Your task to perform on an android device: move an email to a new category in the gmail app Image 0: 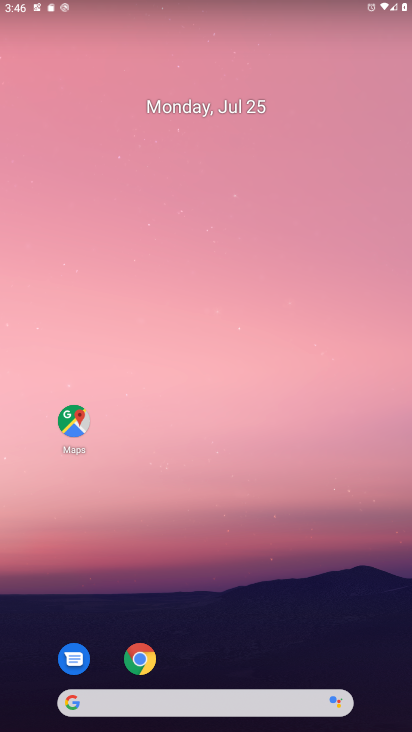
Step 0: drag from (194, 579) to (208, 79)
Your task to perform on an android device: move an email to a new category in the gmail app Image 1: 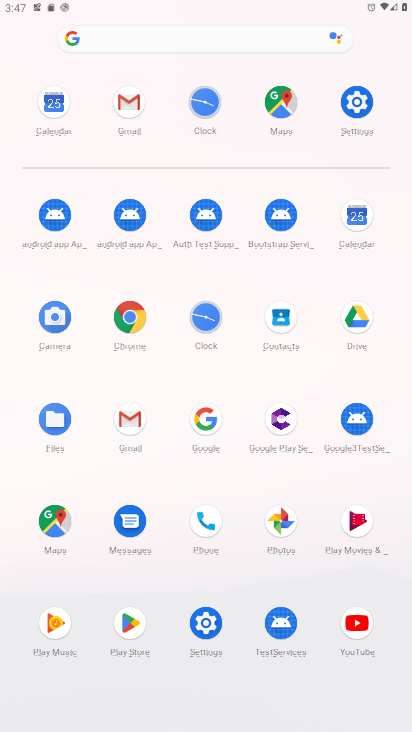
Step 1: click (121, 425)
Your task to perform on an android device: move an email to a new category in the gmail app Image 2: 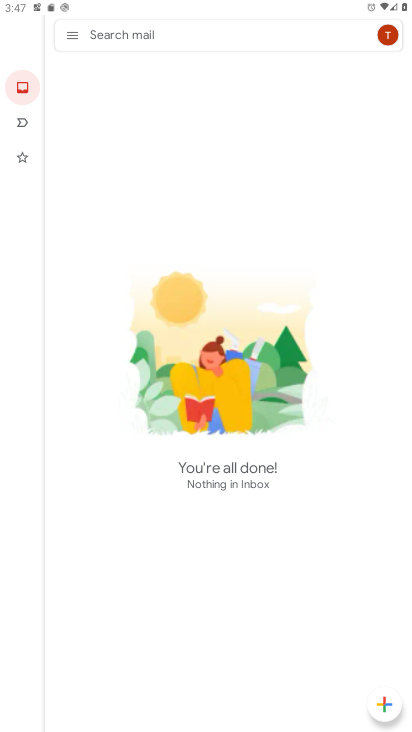
Step 2: click (69, 35)
Your task to perform on an android device: move an email to a new category in the gmail app Image 3: 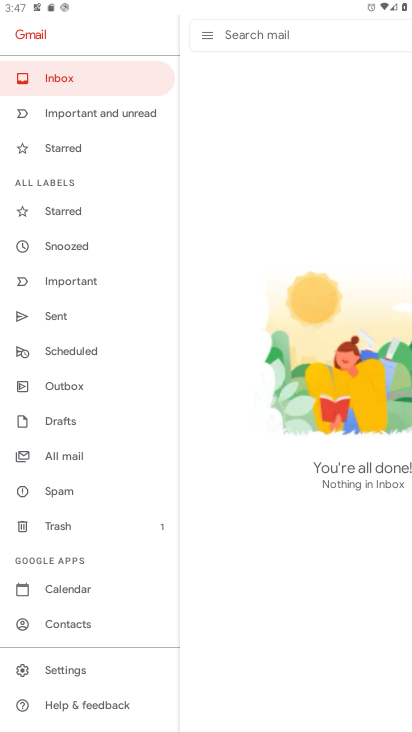
Step 3: click (57, 453)
Your task to perform on an android device: move an email to a new category in the gmail app Image 4: 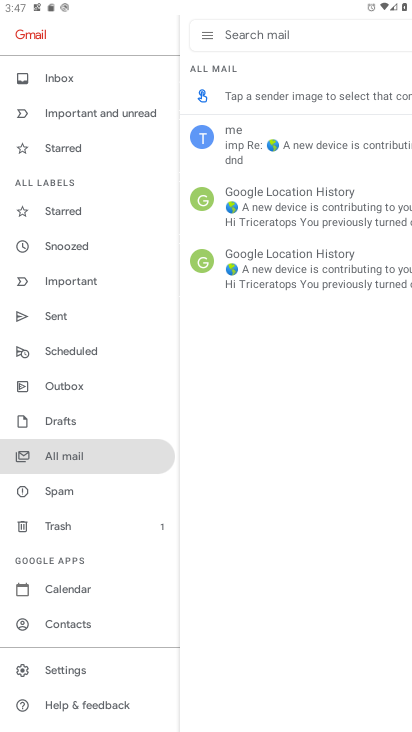
Step 4: click (258, 272)
Your task to perform on an android device: move an email to a new category in the gmail app Image 5: 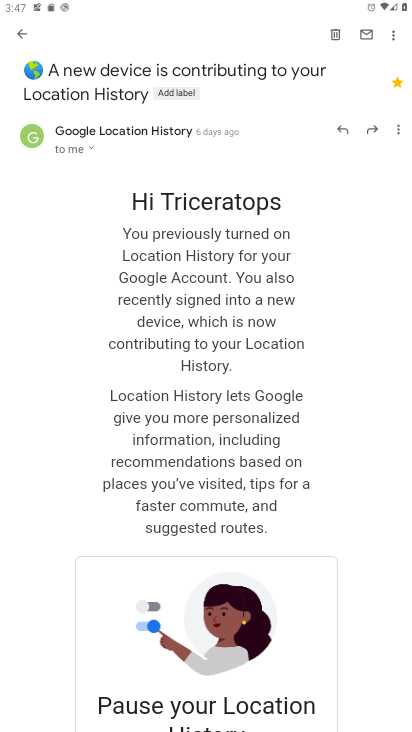
Step 5: click (173, 93)
Your task to perform on an android device: move an email to a new category in the gmail app Image 6: 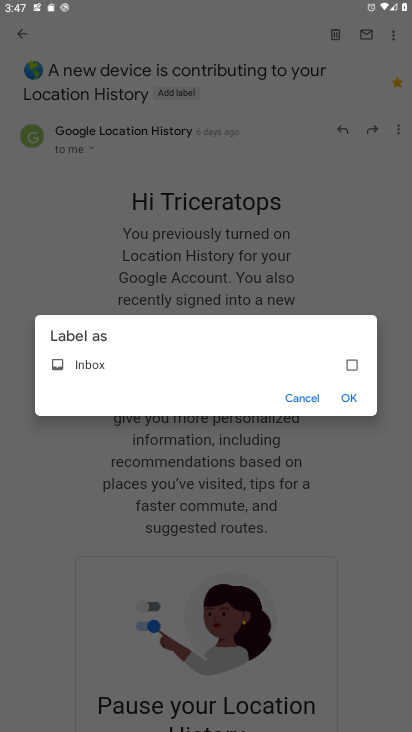
Step 6: click (351, 369)
Your task to perform on an android device: move an email to a new category in the gmail app Image 7: 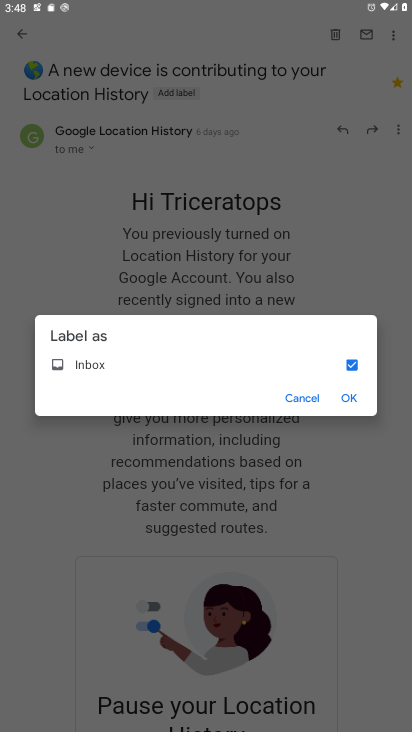
Step 7: click (345, 401)
Your task to perform on an android device: move an email to a new category in the gmail app Image 8: 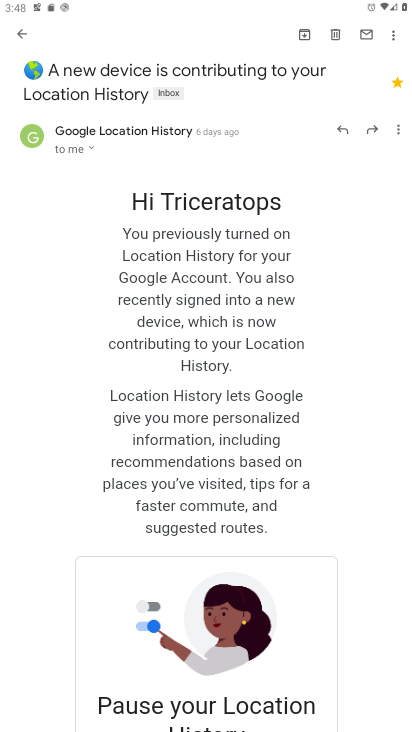
Step 8: task complete